Your task to perform on an android device: Open Google Chrome and open the bookmarks view Image 0: 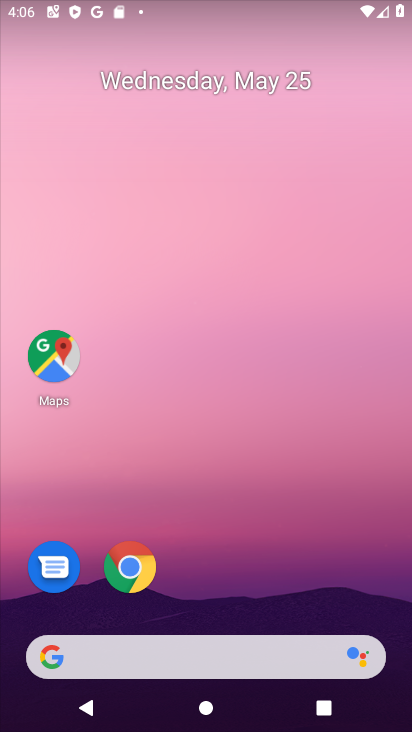
Step 0: drag from (237, 443) to (178, 21)
Your task to perform on an android device: Open Google Chrome and open the bookmarks view Image 1: 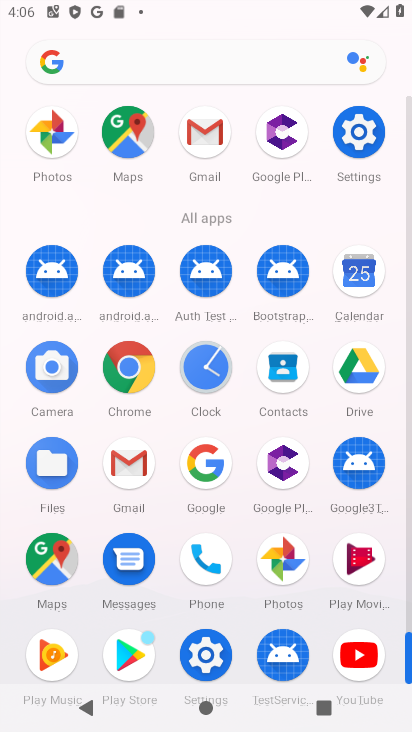
Step 1: drag from (11, 572) to (4, 244)
Your task to perform on an android device: Open Google Chrome and open the bookmarks view Image 2: 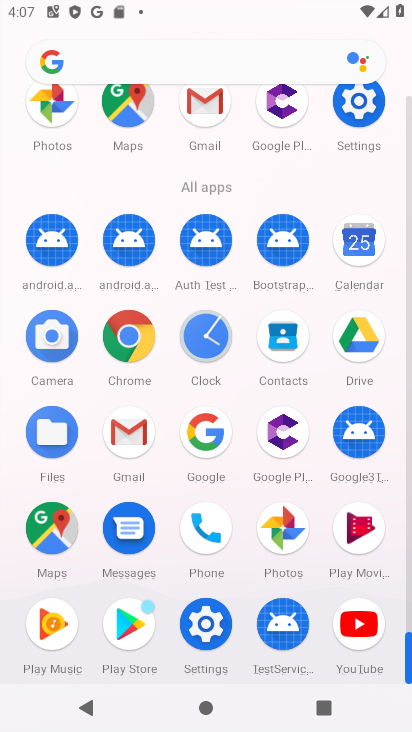
Step 2: click (127, 331)
Your task to perform on an android device: Open Google Chrome and open the bookmarks view Image 3: 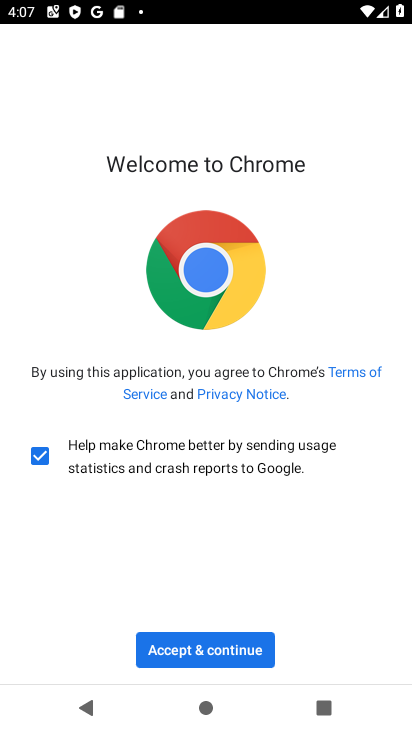
Step 3: click (205, 649)
Your task to perform on an android device: Open Google Chrome and open the bookmarks view Image 4: 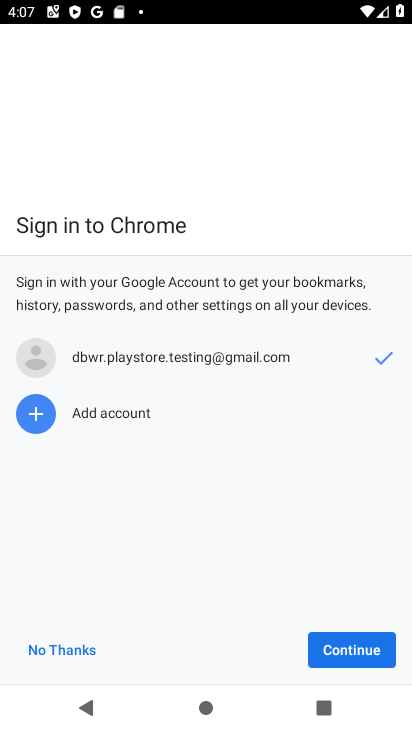
Step 4: click (352, 652)
Your task to perform on an android device: Open Google Chrome and open the bookmarks view Image 5: 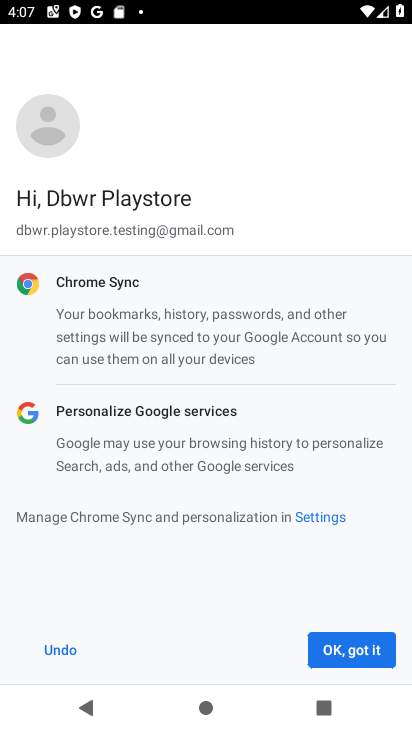
Step 5: click (352, 646)
Your task to perform on an android device: Open Google Chrome and open the bookmarks view Image 6: 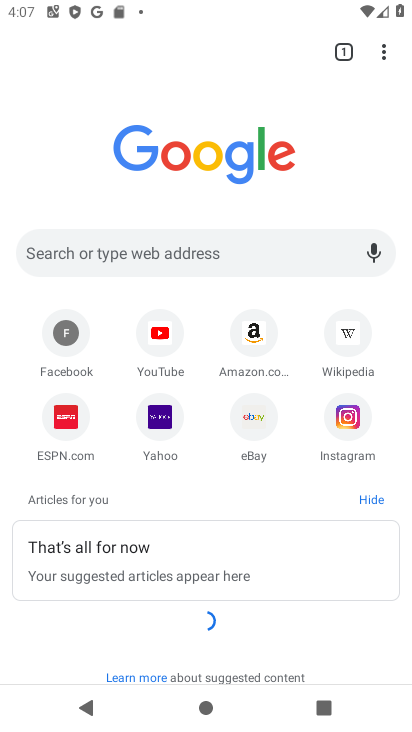
Step 6: task complete